Your task to perform on an android device: turn pop-ups off in chrome Image 0: 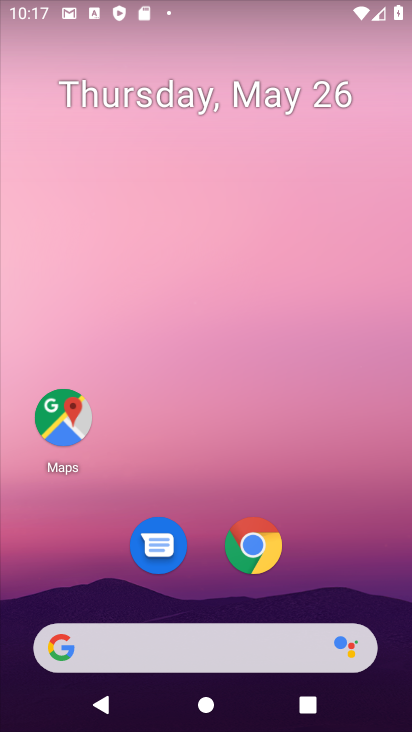
Step 0: press home button
Your task to perform on an android device: turn pop-ups off in chrome Image 1: 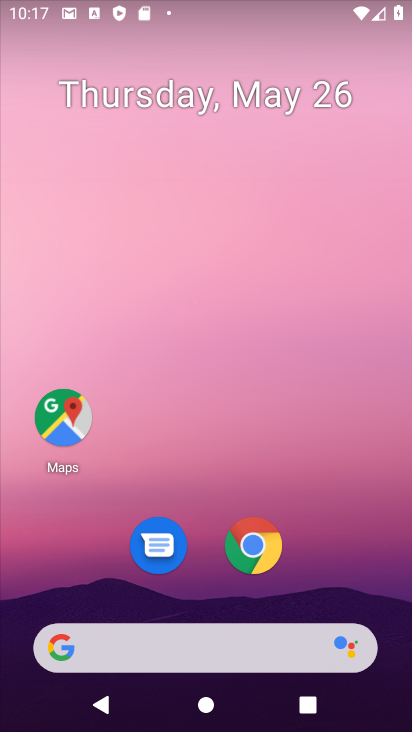
Step 1: click (247, 548)
Your task to perform on an android device: turn pop-ups off in chrome Image 2: 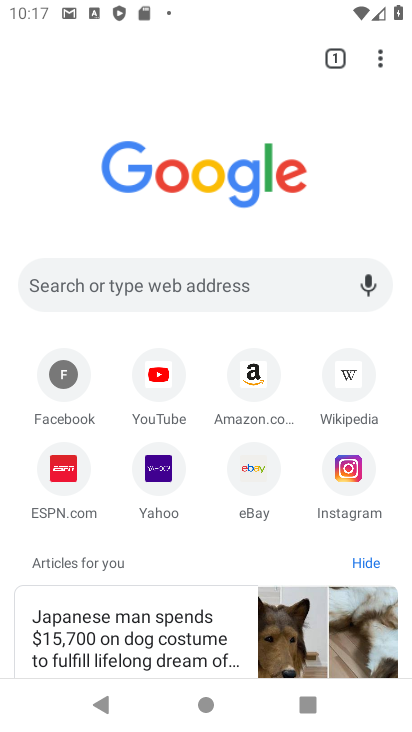
Step 2: drag from (381, 54) to (183, 491)
Your task to perform on an android device: turn pop-ups off in chrome Image 3: 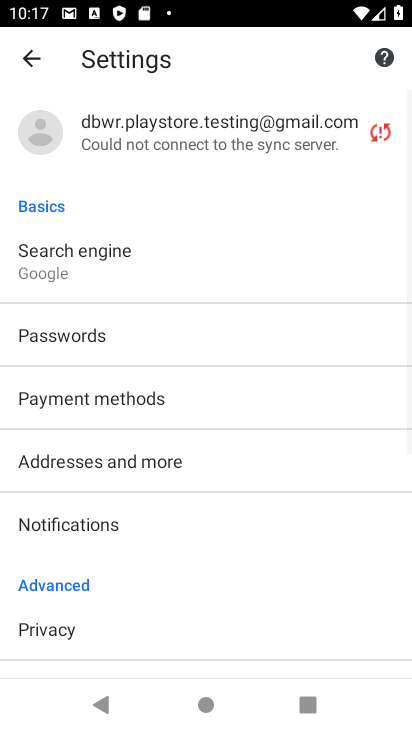
Step 3: drag from (223, 578) to (255, 128)
Your task to perform on an android device: turn pop-ups off in chrome Image 4: 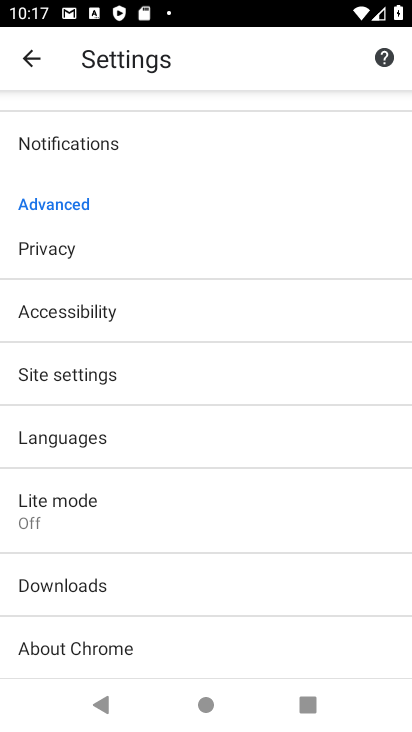
Step 4: click (62, 381)
Your task to perform on an android device: turn pop-ups off in chrome Image 5: 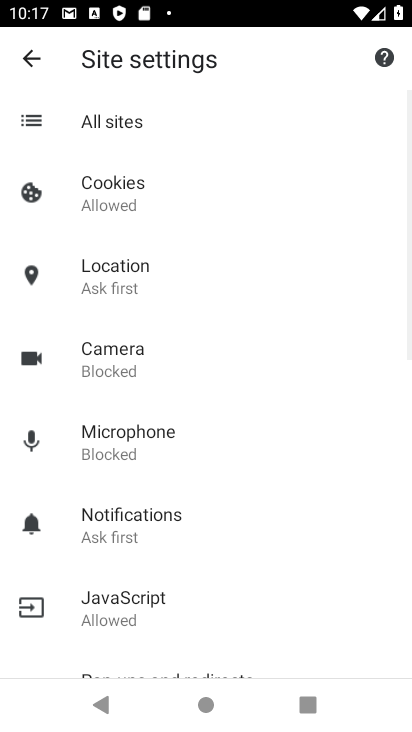
Step 5: click (303, 174)
Your task to perform on an android device: turn pop-ups off in chrome Image 6: 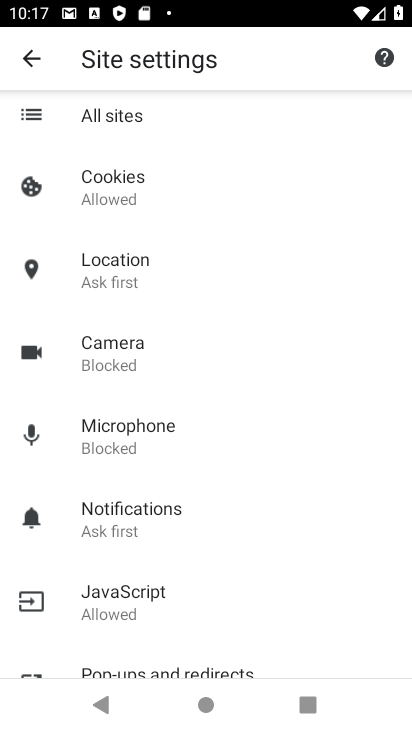
Step 6: drag from (287, 556) to (296, 239)
Your task to perform on an android device: turn pop-ups off in chrome Image 7: 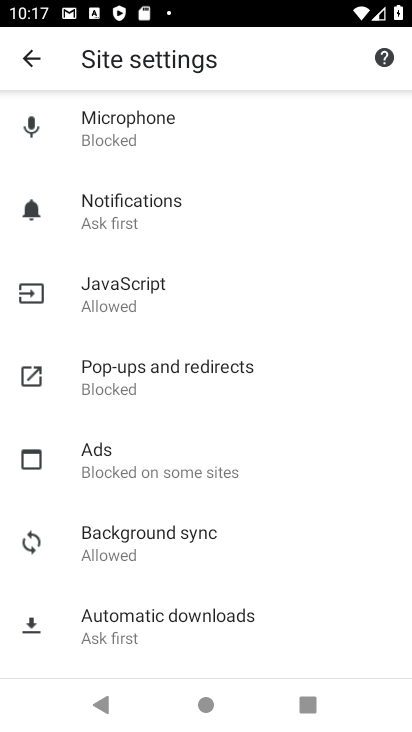
Step 7: click (160, 372)
Your task to perform on an android device: turn pop-ups off in chrome Image 8: 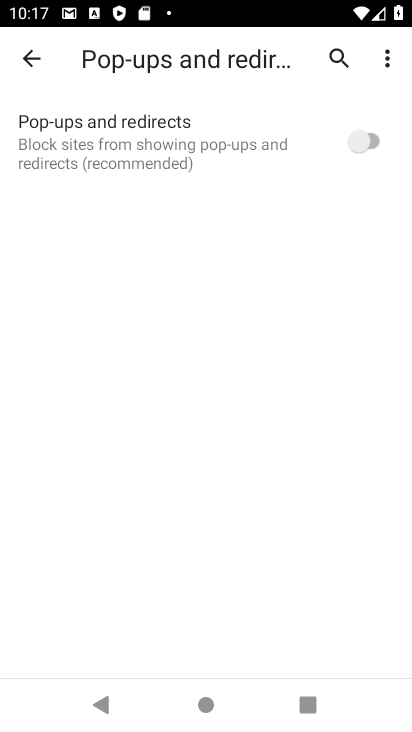
Step 8: task complete